Your task to perform on an android device: empty trash in the gmail app Image 0: 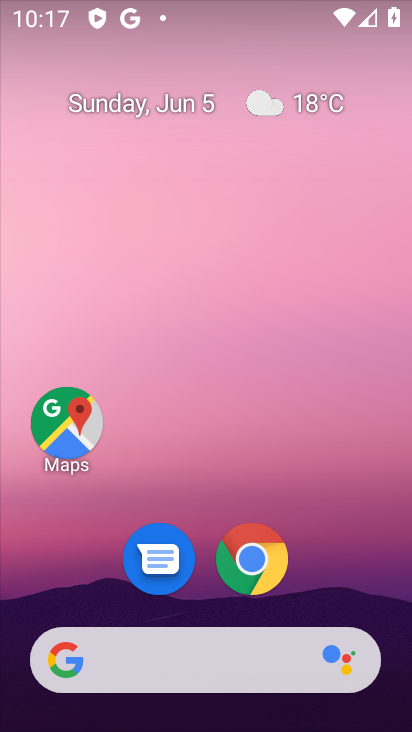
Step 0: drag from (403, 577) to (411, 173)
Your task to perform on an android device: empty trash in the gmail app Image 1: 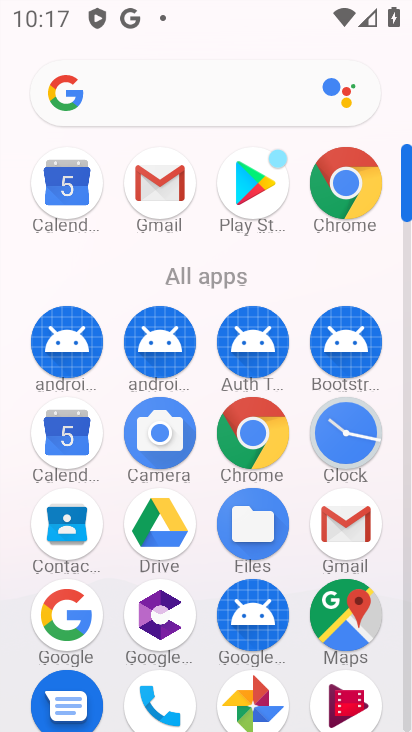
Step 1: click (332, 529)
Your task to perform on an android device: empty trash in the gmail app Image 2: 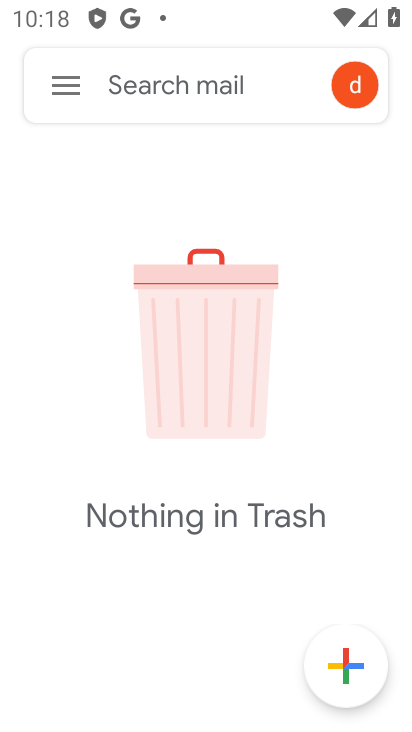
Step 2: task complete